Your task to perform on an android device: make emails show in primary in the gmail app Image 0: 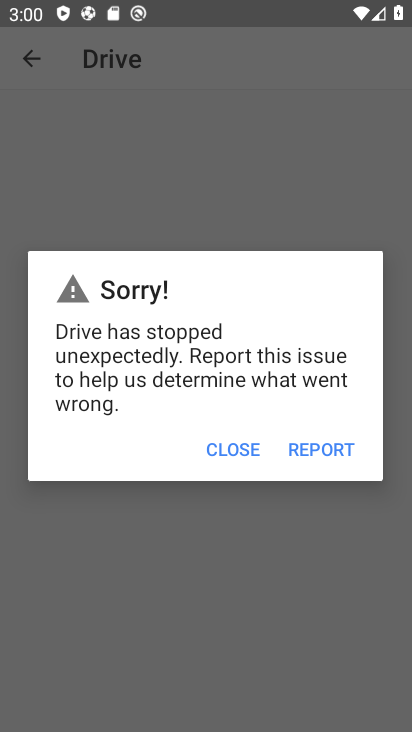
Step 0: press home button
Your task to perform on an android device: make emails show in primary in the gmail app Image 1: 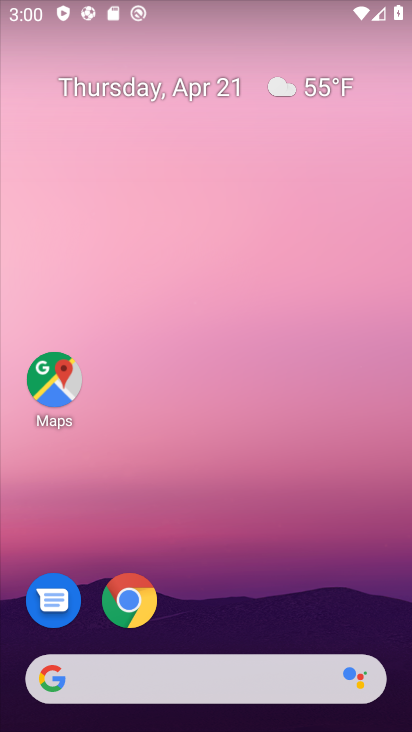
Step 1: drag from (190, 638) to (276, 151)
Your task to perform on an android device: make emails show in primary in the gmail app Image 2: 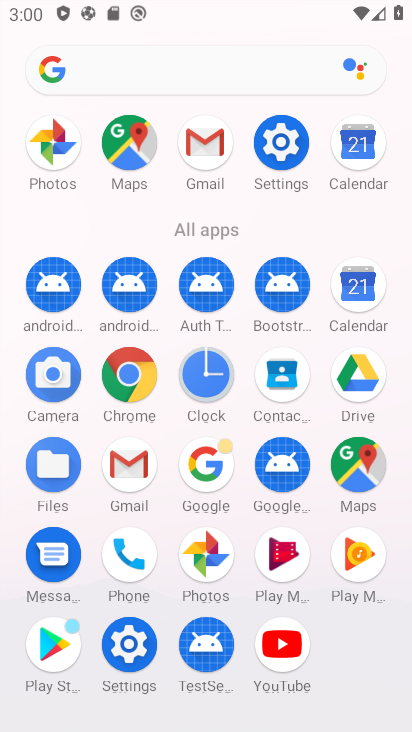
Step 2: click (199, 150)
Your task to perform on an android device: make emails show in primary in the gmail app Image 3: 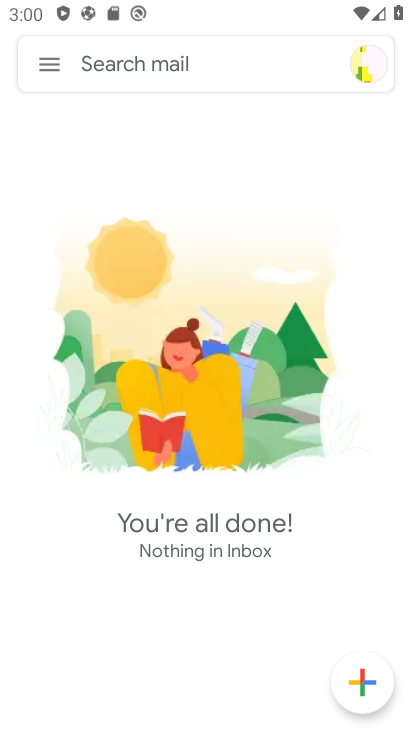
Step 3: click (48, 70)
Your task to perform on an android device: make emails show in primary in the gmail app Image 4: 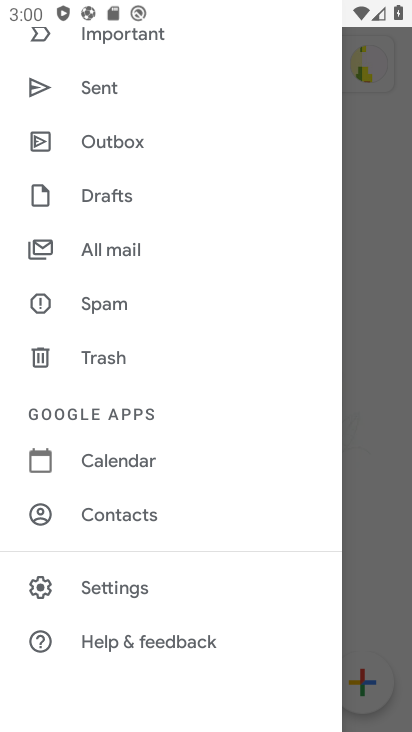
Step 4: click (123, 583)
Your task to perform on an android device: make emails show in primary in the gmail app Image 5: 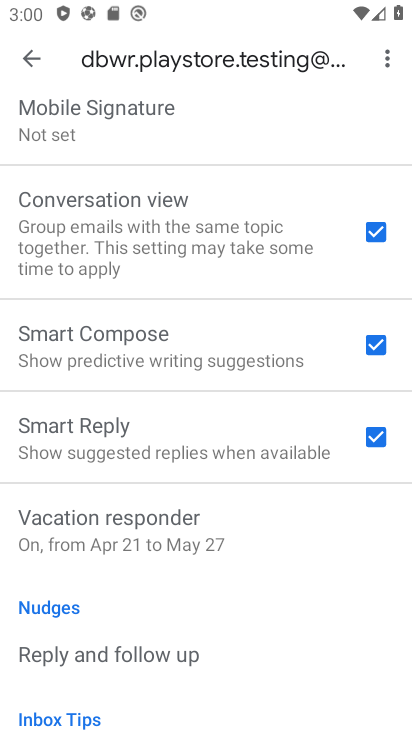
Step 5: task complete